Your task to perform on an android device: What's a good restaurant in Los Angeles? Image 0: 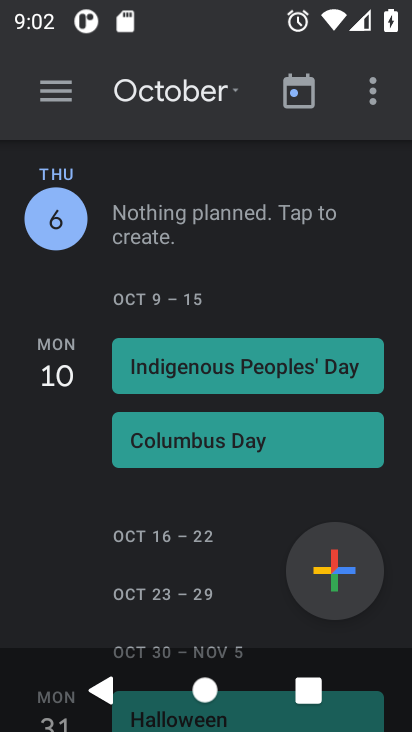
Step 0: press home button
Your task to perform on an android device: What's a good restaurant in Los Angeles? Image 1: 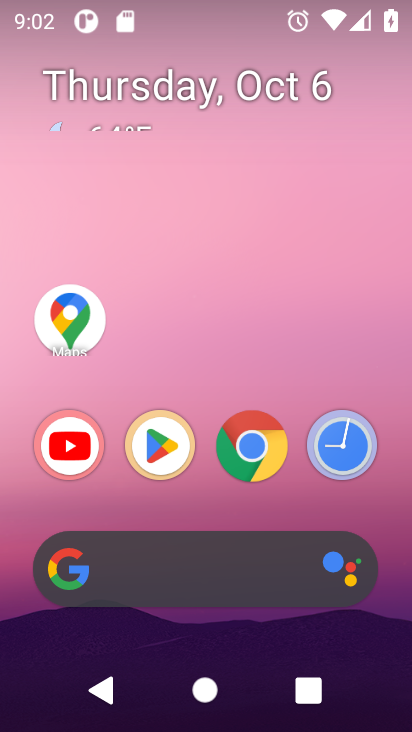
Step 1: click (164, 541)
Your task to perform on an android device: What's a good restaurant in Los Angeles? Image 2: 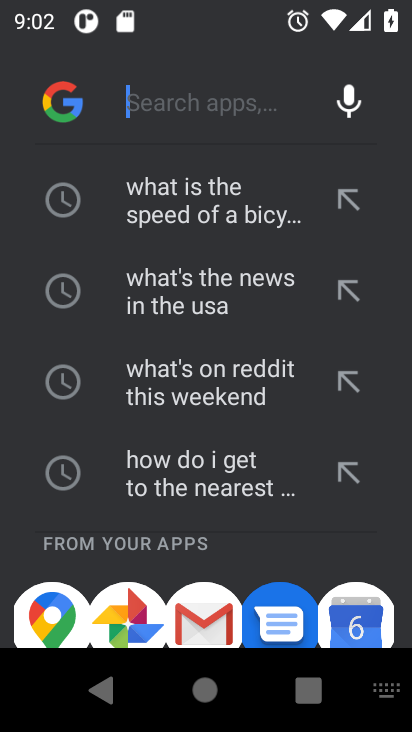
Step 2: type "What's a good restaurant in Los Angeles?"
Your task to perform on an android device: What's a good restaurant in Los Angeles? Image 3: 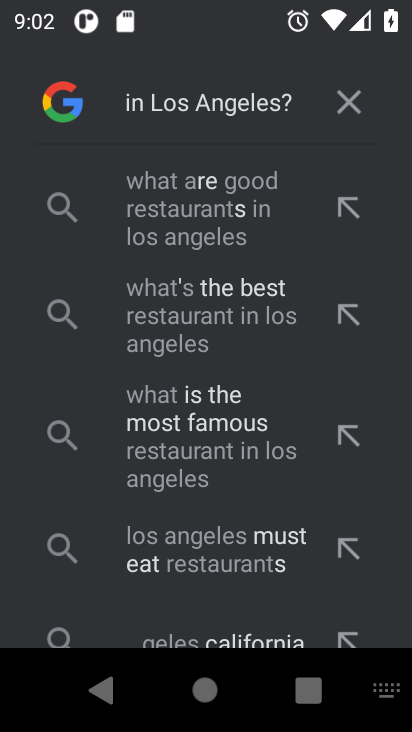
Step 3: click (235, 218)
Your task to perform on an android device: What's a good restaurant in Los Angeles? Image 4: 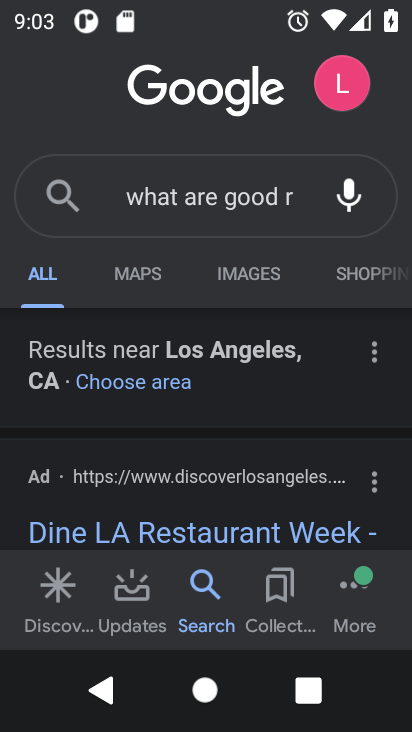
Step 4: task complete